Your task to perform on an android device: Check the news Image 0: 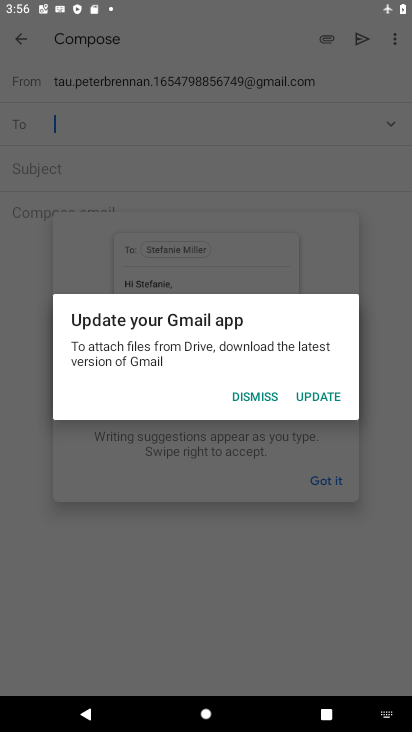
Step 0: press home button
Your task to perform on an android device: Check the news Image 1: 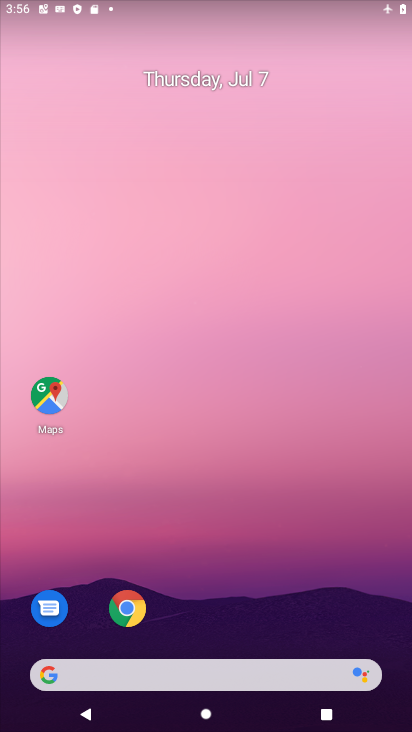
Step 1: drag from (306, 595) to (222, 105)
Your task to perform on an android device: Check the news Image 2: 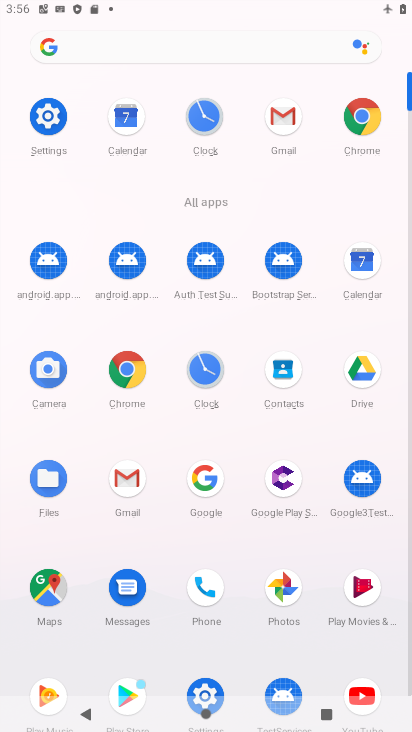
Step 2: click (361, 120)
Your task to perform on an android device: Check the news Image 3: 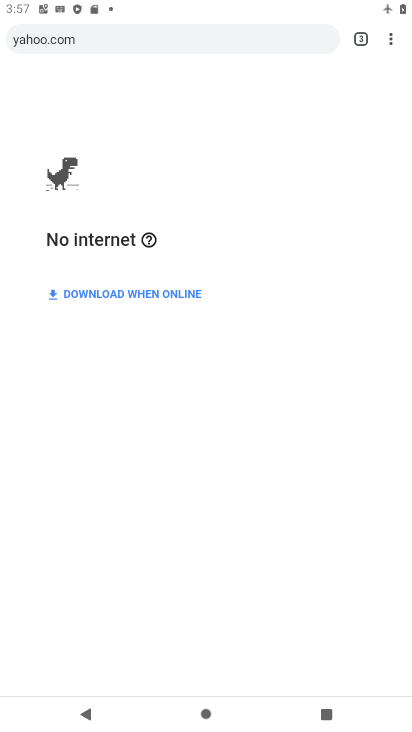
Step 3: click (209, 43)
Your task to perform on an android device: Check the news Image 4: 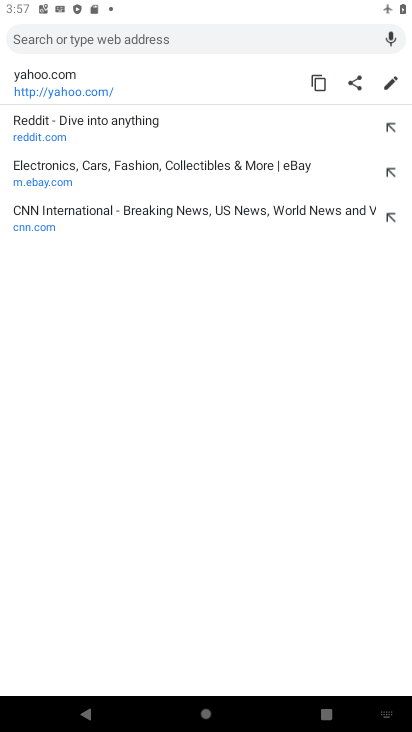
Step 4: type "news"
Your task to perform on an android device: Check the news Image 5: 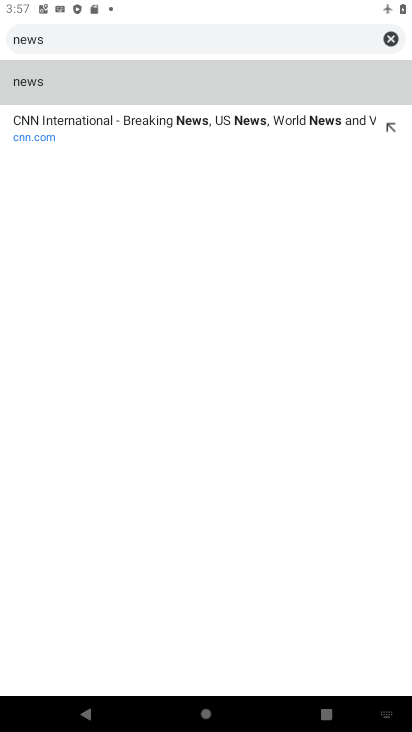
Step 5: click (115, 80)
Your task to perform on an android device: Check the news Image 6: 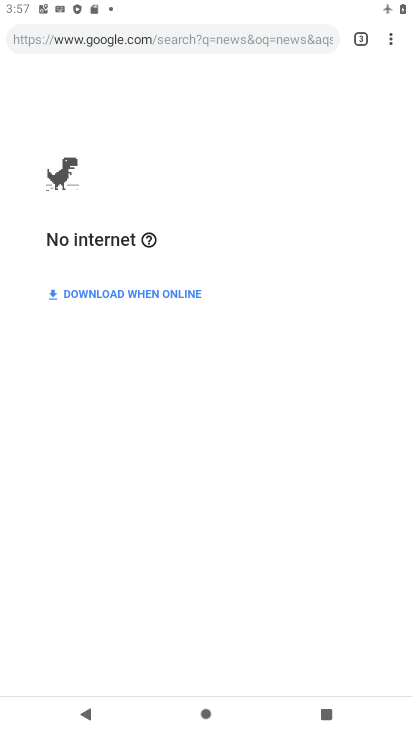
Step 6: task complete